Your task to perform on an android device: toggle notifications settings in the gmail app Image 0: 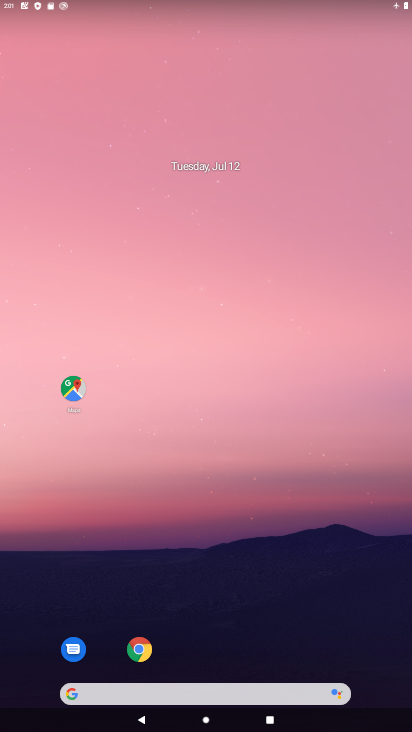
Step 0: drag from (315, 642) to (251, 93)
Your task to perform on an android device: toggle notifications settings in the gmail app Image 1: 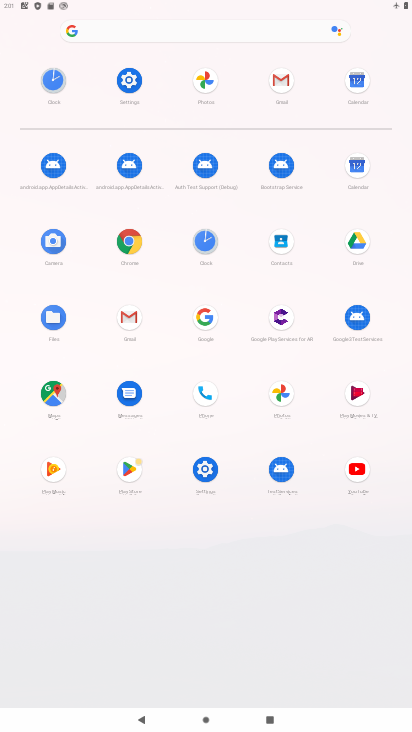
Step 1: click (137, 88)
Your task to perform on an android device: toggle notifications settings in the gmail app Image 2: 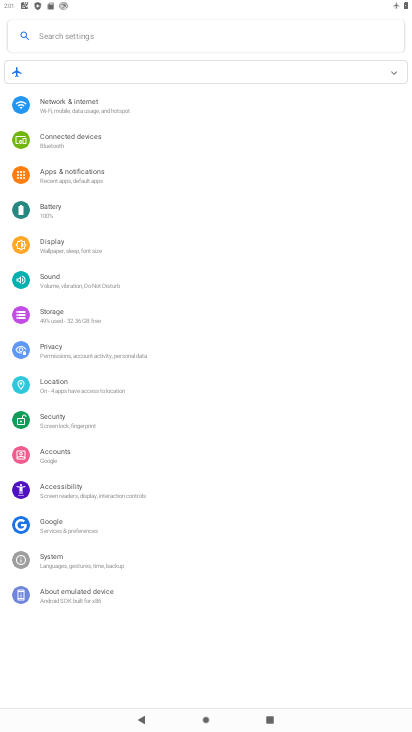
Step 2: click (104, 175)
Your task to perform on an android device: toggle notifications settings in the gmail app Image 3: 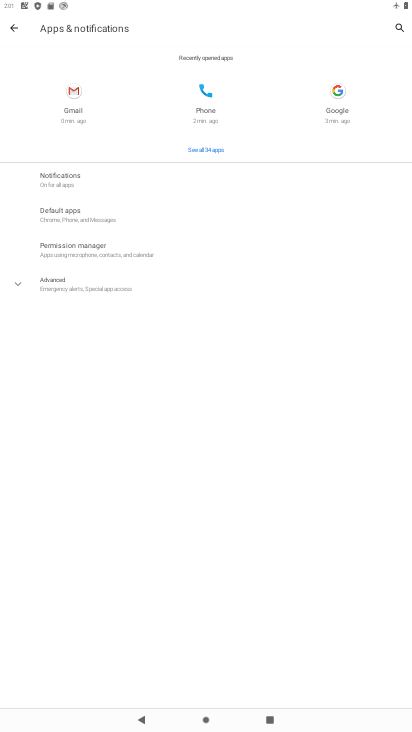
Step 3: click (86, 187)
Your task to perform on an android device: toggle notifications settings in the gmail app Image 4: 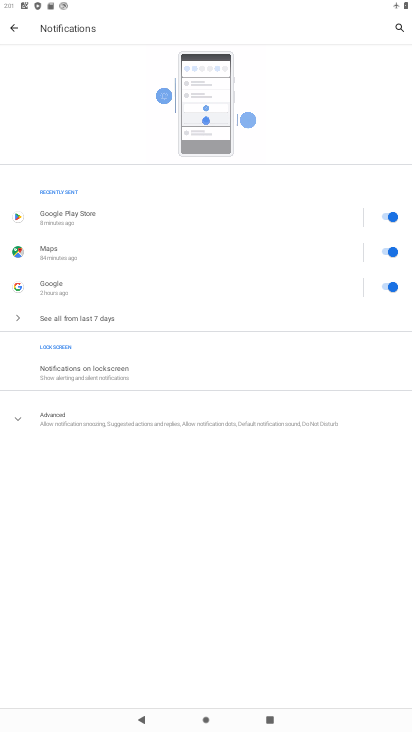
Step 4: click (64, 364)
Your task to perform on an android device: toggle notifications settings in the gmail app Image 5: 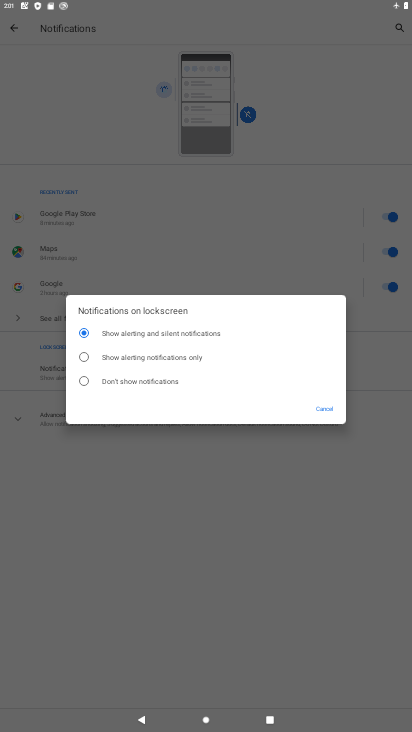
Step 5: click (330, 405)
Your task to perform on an android device: toggle notifications settings in the gmail app Image 6: 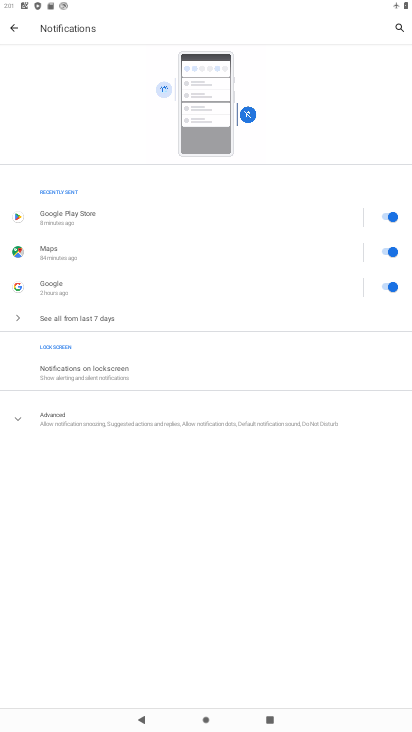
Step 6: click (279, 417)
Your task to perform on an android device: toggle notifications settings in the gmail app Image 7: 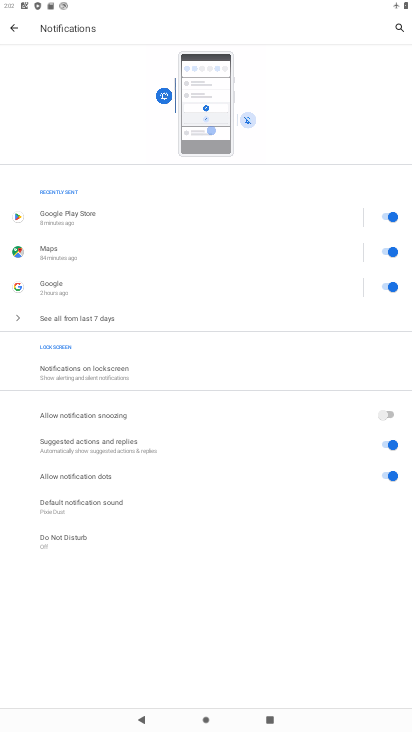
Step 7: task complete